Your task to perform on an android device: change the clock style Image 0: 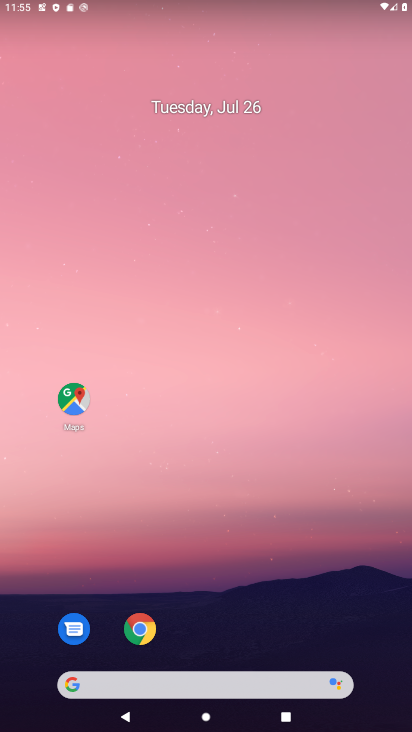
Step 0: drag from (244, 600) to (236, 186)
Your task to perform on an android device: change the clock style Image 1: 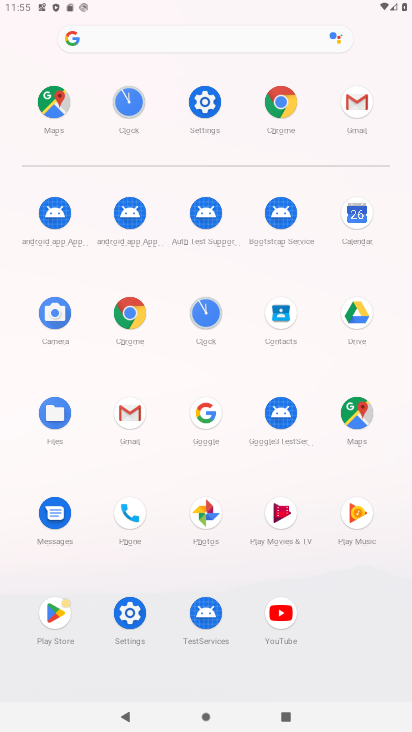
Step 1: click (206, 321)
Your task to perform on an android device: change the clock style Image 2: 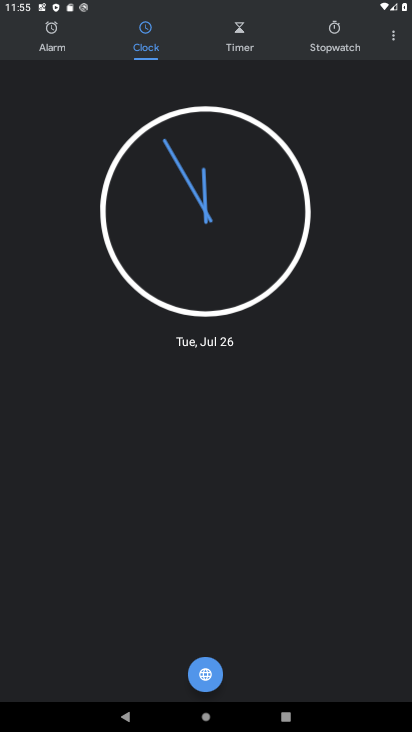
Step 2: click (391, 41)
Your task to perform on an android device: change the clock style Image 3: 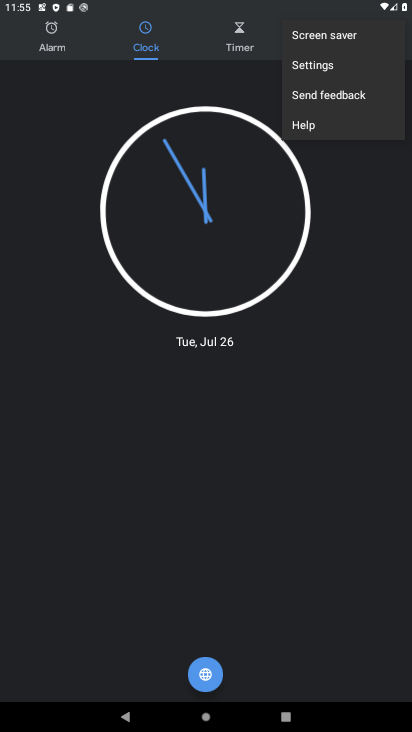
Step 3: click (317, 63)
Your task to perform on an android device: change the clock style Image 4: 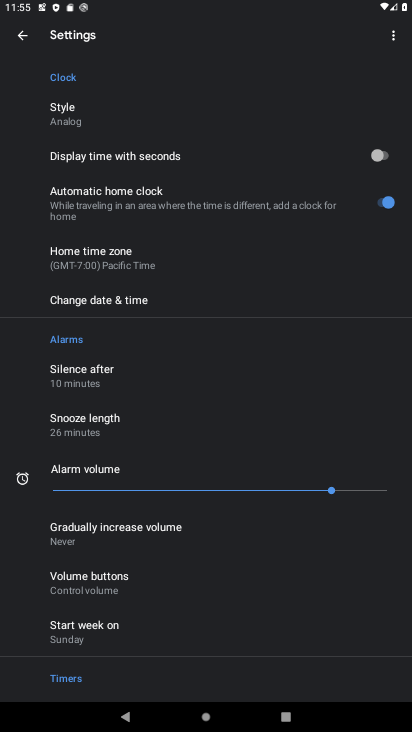
Step 4: click (66, 114)
Your task to perform on an android device: change the clock style Image 5: 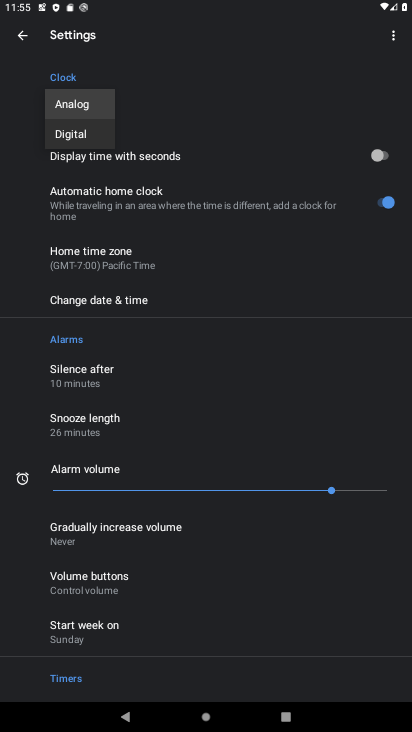
Step 5: click (66, 107)
Your task to perform on an android device: change the clock style Image 6: 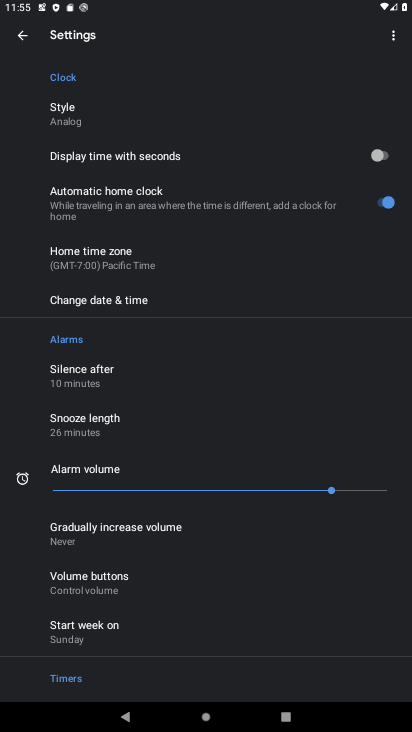
Step 6: task complete